Your task to perform on an android device: Search for razer deathadder on amazon, select the first entry, add it to the cart, then select checkout. Image 0: 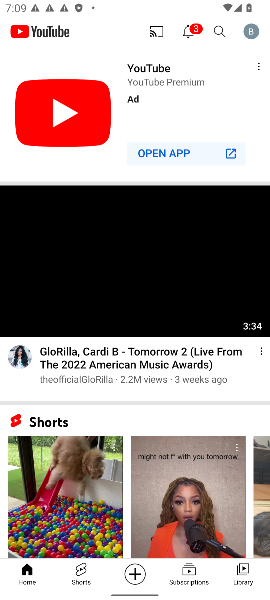
Step 0: press home button
Your task to perform on an android device: Search for razer deathadder on amazon, select the first entry, add it to the cart, then select checkout. Image 1: 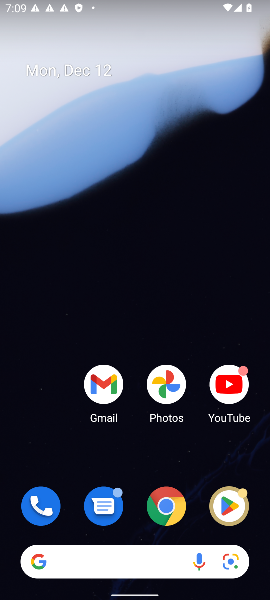
Step 1: click (164, 554)
Your task to perform on an android device: Search for razer deathadder on amazon, select the first entry, add it to the cart, then select checkout. Image 2: 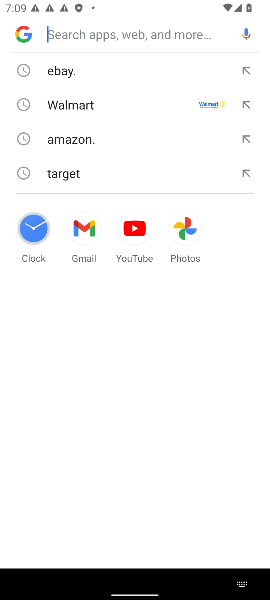
Step 2: click (103, 145)
Your task to perform on an android device: Search for razer deathadder on amazon, select the first entry, add it to the cart, then select checkout. Image 3: 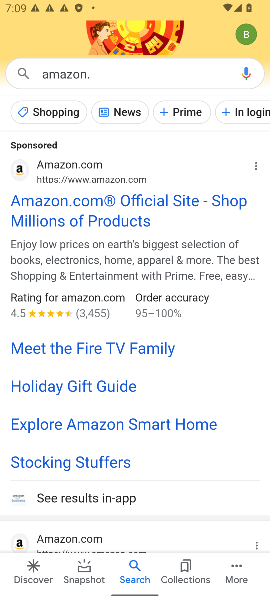
Step 3: click (94, 196)
Your task to perform on an android device: Search for razer deathadder on amazon, select the first entry, add it to the cart, then select checkout. Image 4: 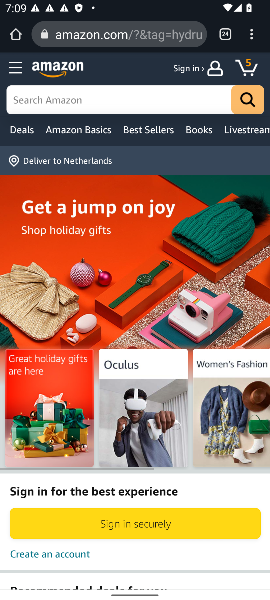
Step 4: click (94, 196)
Your task to perform on an android device: Search for razer deathadder on amazon, select the first entry, add it to the cart, then select checkout. Image 5: 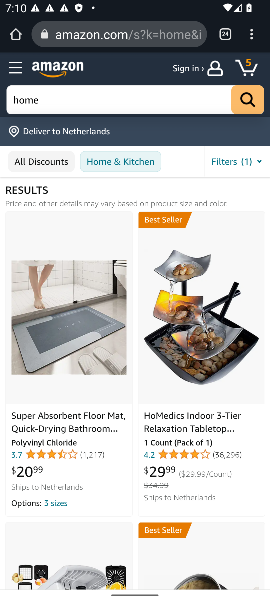
Step 5: click (147, 91)
Your task to perform on an android device: Search for razer deathadder on amazon, select the first entry, add it to the cart, then select checkout. Image 6: 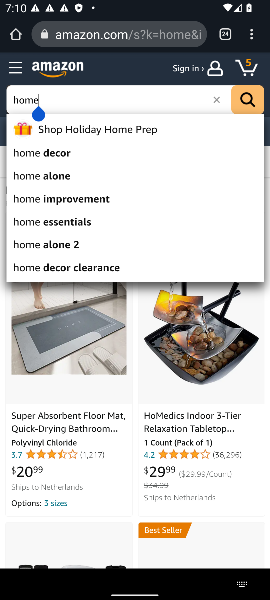
Step 6: click (221, 100)
Your task to perform on an android device: Search for razer deathadder on amazon, select the first entry, add it to the cart, then select checkout. Image 7: 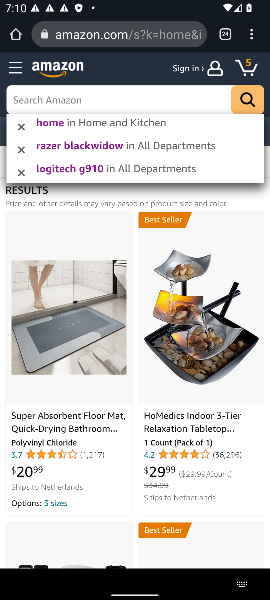
Step 7: type "razer heathadder"
Your task to perform on an android device: Search for razer deathadder on amazon, select the first entry, add it to the cart, then select checkout. Image 8: 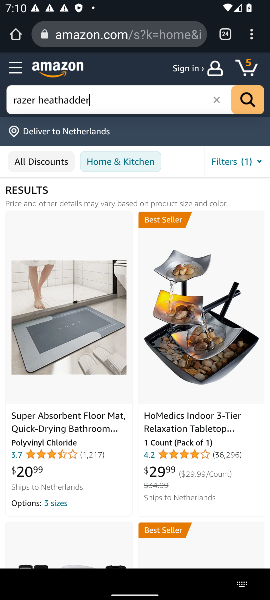
Step 8: click (252, 104)
Your task to perform on an android device: Search for razer deathadder on amazon, select the first entry, add it to the cart, then select checkout. Image 9: 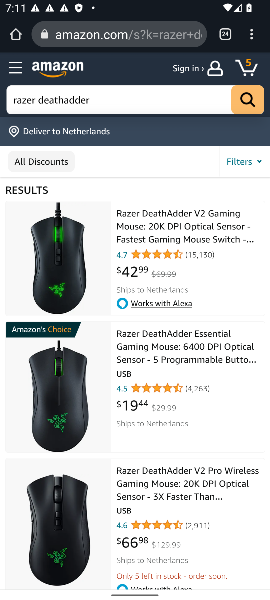
Step 9: click (203, 255)
Your task to perform on an android device: Search for razer deathadder on amazon, select the first entry, add it to the cart, then select checkout. Image 10: 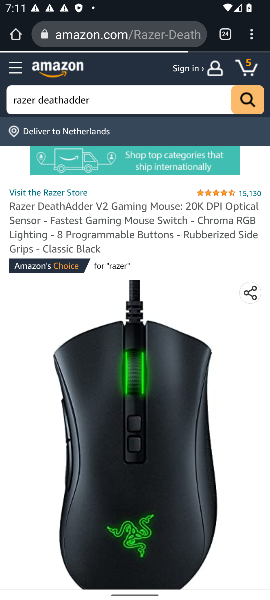
Step 10: drag from (199, 415) to (195, 217)
Your task to perform on an android device: Search for razer deathadder on amazon, select the first entry, add it to the cart, then select checkout. Image 11: 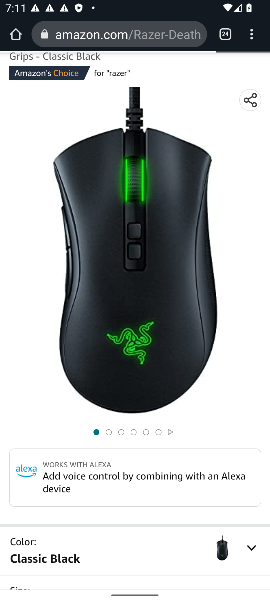
Step 11: drag from (202, 444) to (192, 95)
Your task to perform on an android device: Search for razer deathadder on amazon, select the first entry, add it to the cart, then select checkout. Image 12: 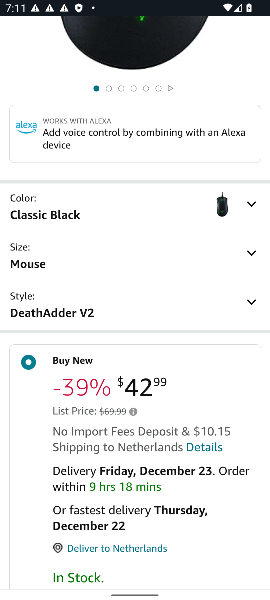
Step 12: drag from (208, 535) to (204, 249)
Your task to perform on an android device: Search for razer deathadder on amazon, select the first entry, add it to the cart, then select checkout. Image 13: 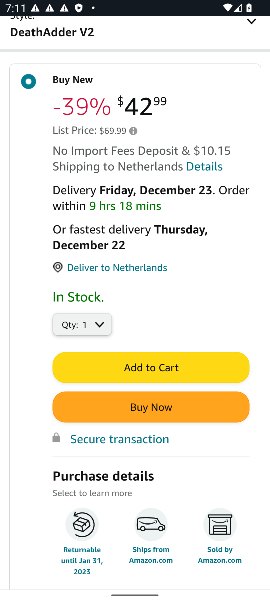
Step 13: click (201, 372)
Your task to perform on an android device: Search for razer deathadder on amazon, select the first entry, add it to the cart, then select checkout. Image 14: 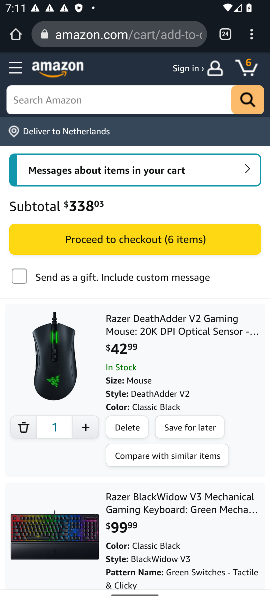
Step 14: task complete